Your task to perform on an android device: find snoozed emails in the gmail app Image 0: 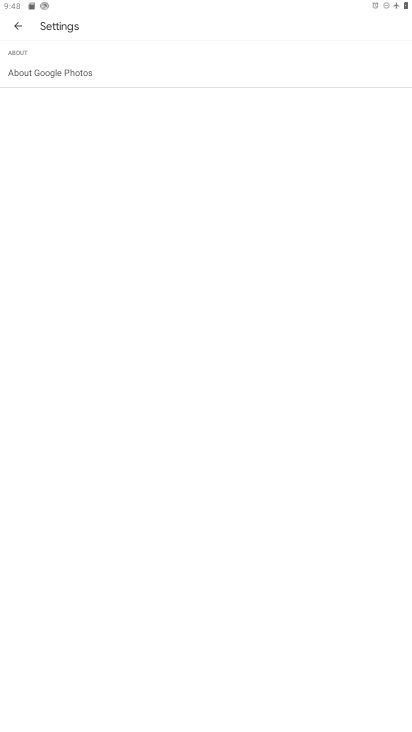
Step 0: press home button
Your task to perform on an android device: find snoozed emails in the gmail app Image 1: 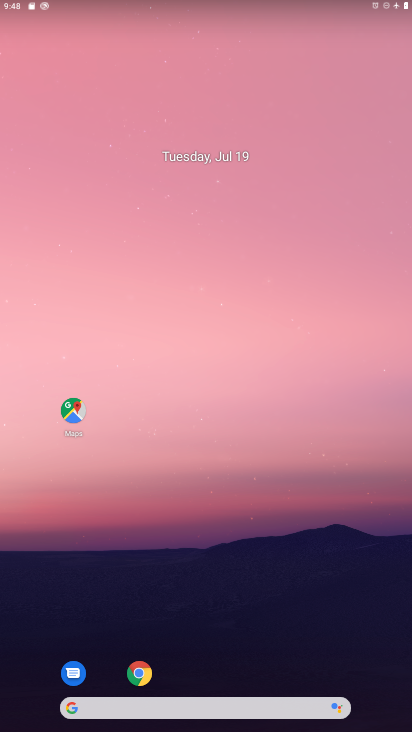
Step 1: drag from (371, 667) to (306, 213)
Your task to perform on an android device: find snoozed emails in the gmail app Image 2: 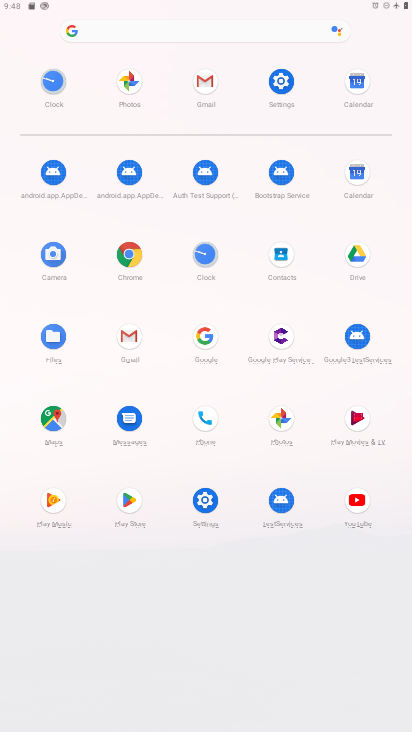
Step 2: click (127, 335)
Your task to perform on an android device: find snoozed emails in the gmail app Image 3: 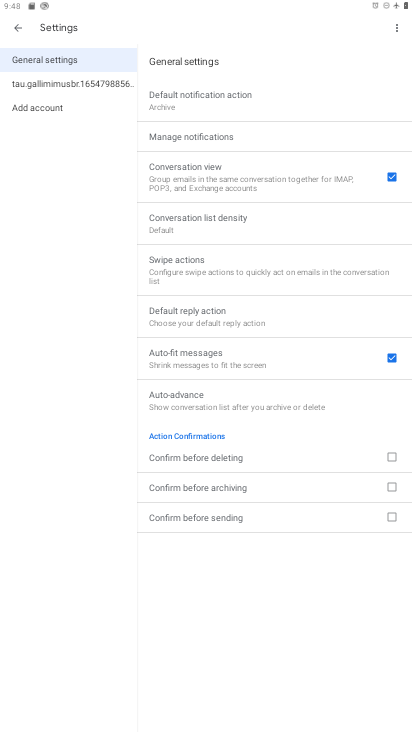
Step 3: press back button
Your task to perform on an android device: find snoozed emails in the gmail app Image 4: 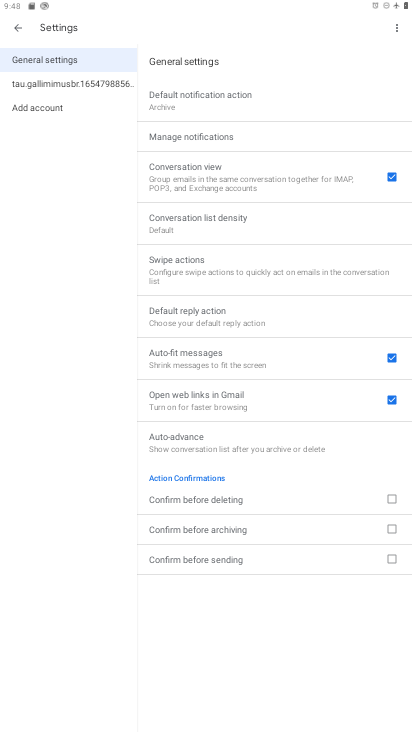
Step 4: press back button
Your task to perform on an android device: find snoozed emails in the gmail app Image 5: 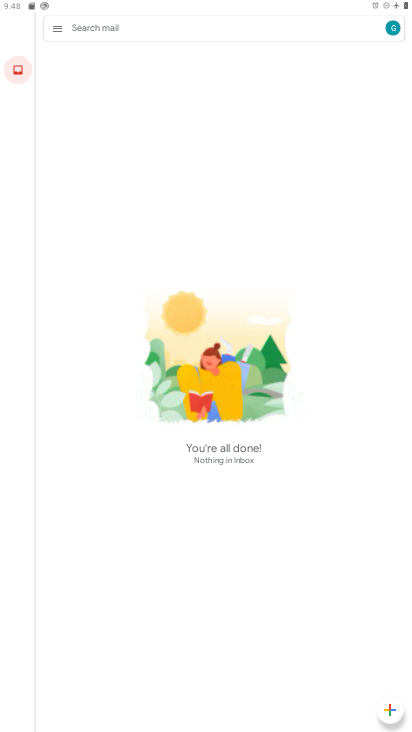
Step 5: click (56, 28)
Your task to perform on an android device: find snoozed emails in the gmail app Image 6: 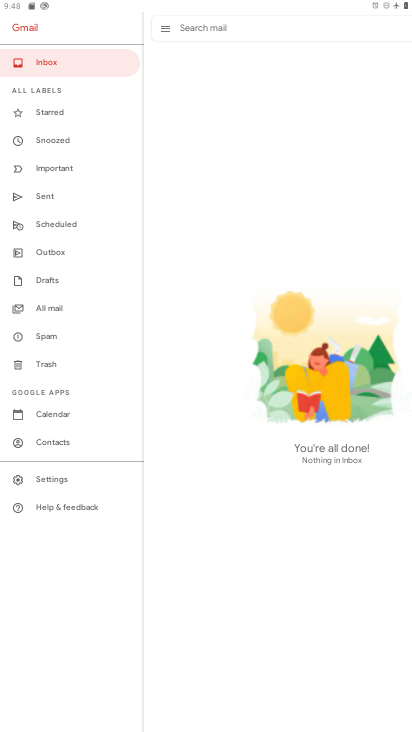
Step 6: click (46, 113)
Your task to perform on an android device: find snoozed emails in the gmail app Image 7: 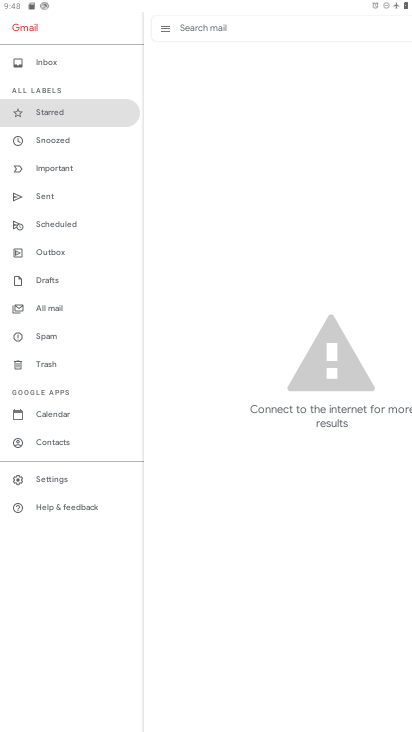
Step 7: task complete